Your task to perform on an android device: What's on my calendar tomorrow? Image 0: 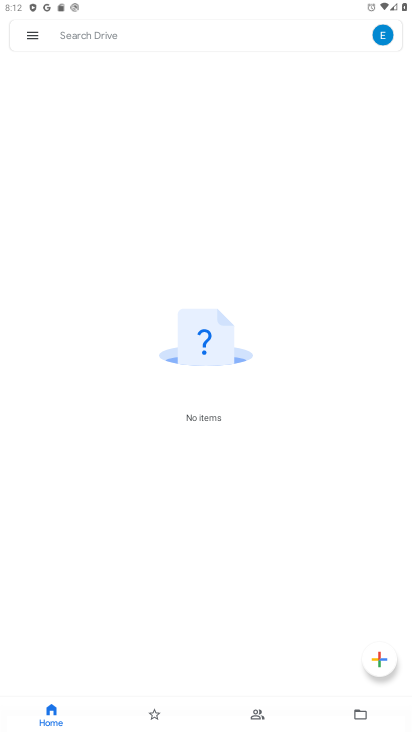
Step 0: press home button
Your task to perform on an android device: What's on my calendar tomorrow? Image 1: 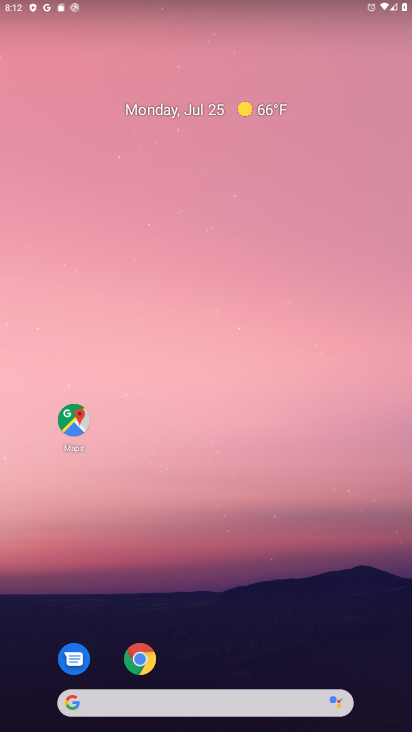
Step 1: drag from (194, 670) to (146, 79)
Your task to perform on an android device: What's on my calendar tomorrow? Image 2: 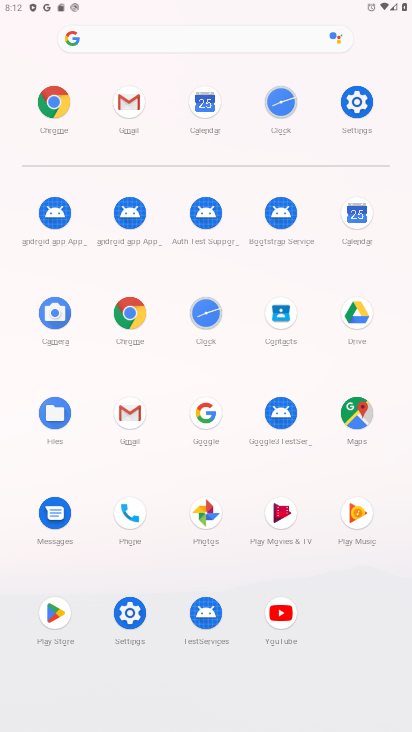
Step 2: click (355, 204)
Your task to perform on an android device: What's on my calendar tomorrow? Image 3: 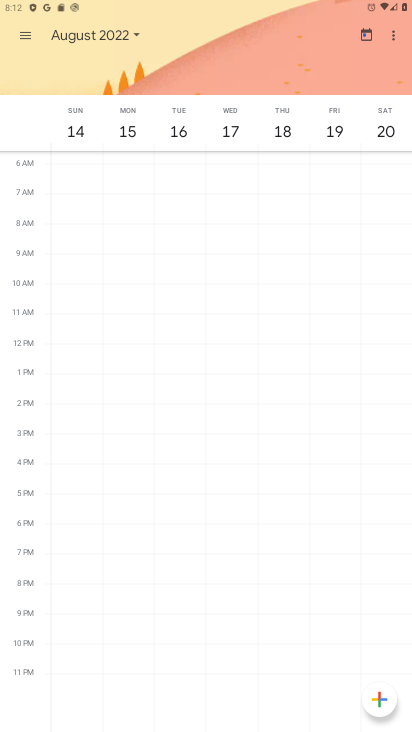
Step 3: click (364, 44)
Your task to perform on an android device: What's on my calendar tomorrow? Image 4: 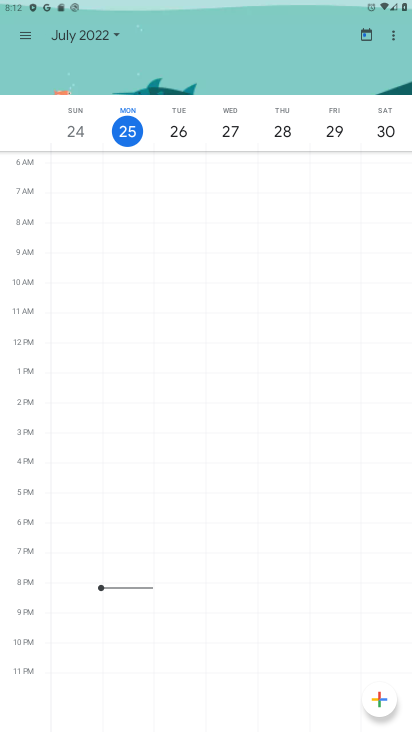
Step 4: click (184, 130)
Your task to perform on an android device: What's on my calendar tomorrow? Image 5: 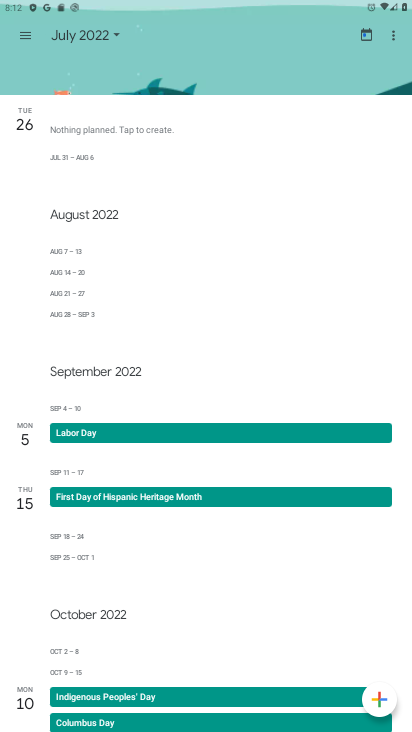
Step 5: task complete